Your task to perform on an android device: turn pop-ups on in chrome Image 0: 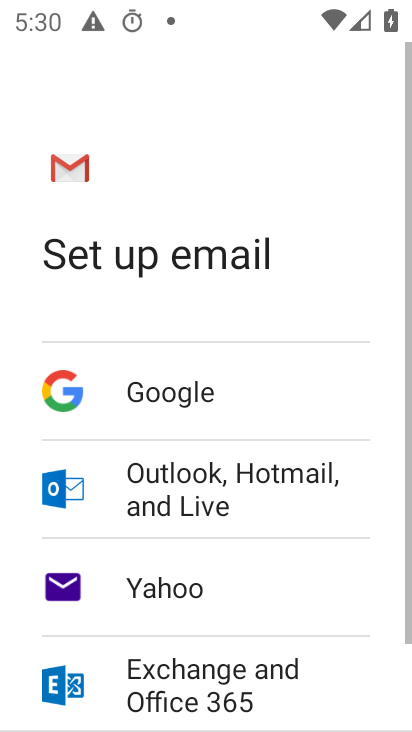
Step 0: press home button
Your task to perform on an android device: turn pop-ups on in chrome Image 1: 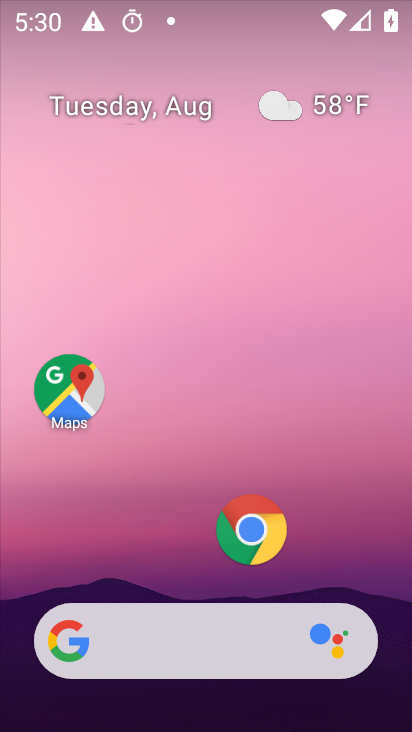
Step 1: click (257, 539)
Your task to perform on an android device: turn pop-ups on in chrome Image 2: 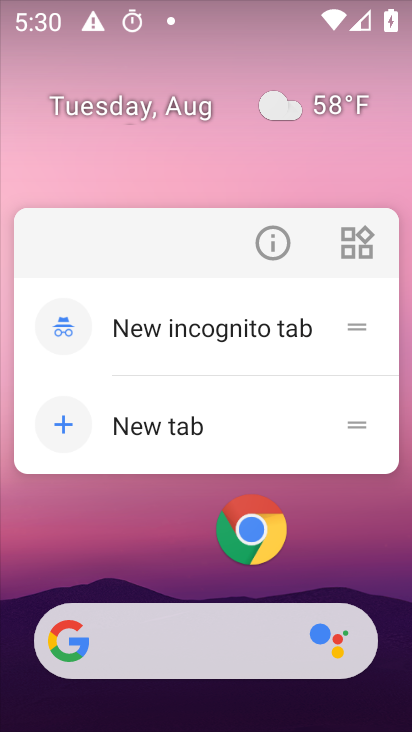
Step 2: click (251, 533)
Your task to perform on an android device: turn pop-ups on in chrome Image 3: 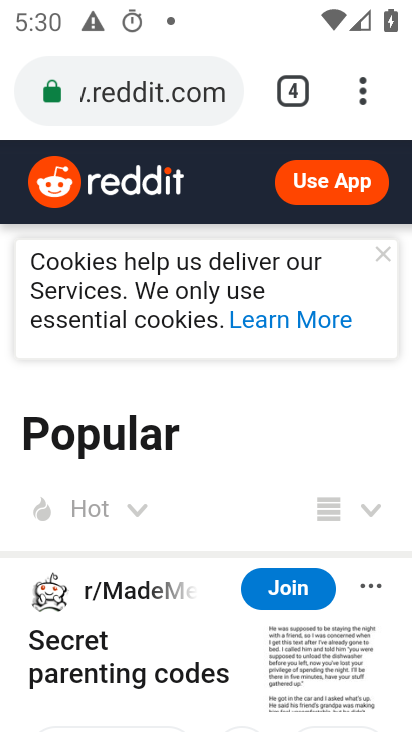
Step 3: click (350, 98)
Your task to perform on an android device: turn pop-ups on in chrome Image 4: 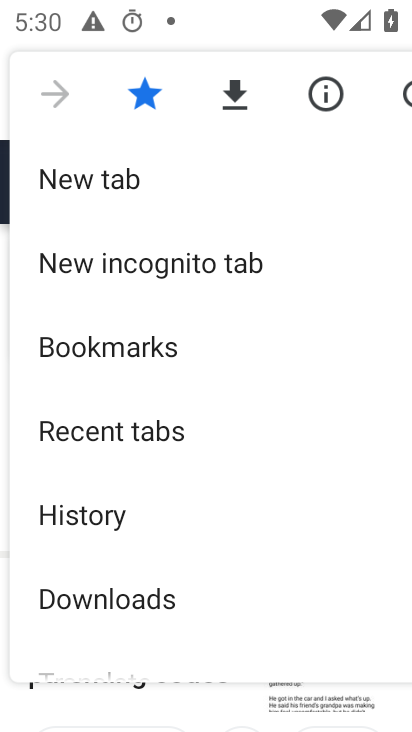
Step 4: drag from (187, 567) to (193, 257)
Your task to perform on an android device: turn pop-ups on in chrome Image 5: 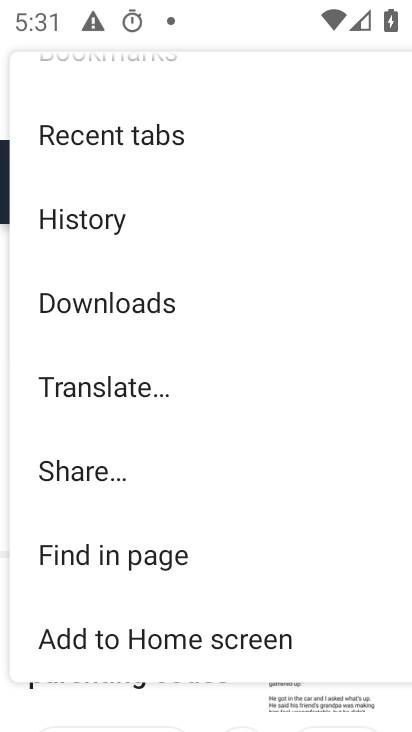
Step 5: drag from (196, 565) to (205, 279)
Your task to perform on an android device: turn pop-ups on in chrome Image 6: 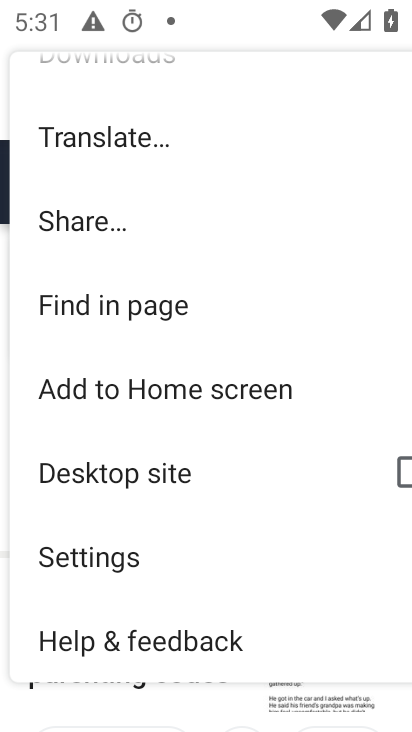
Step 6: click (134, 559)
Your task to perform on an android device: turn pop-ups on in chrome Image 7: 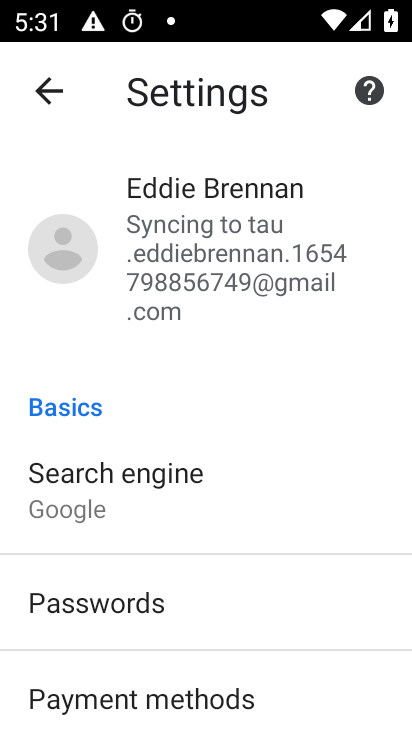
Step 7: drag from (138, 665) to (169, 297)
Your task to perform on an android device: turn pop-ups on in chrome Image 8: 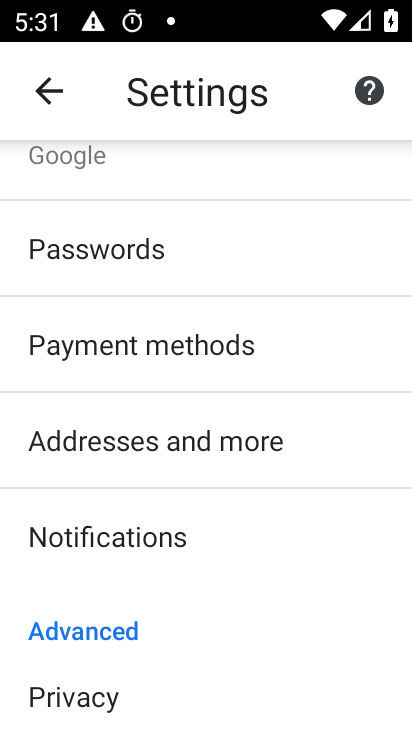
Step 8: drag from (195, 562) to (219, 287)
Your task to perform on an android device: turn pop-ups on in chrome Image 9: 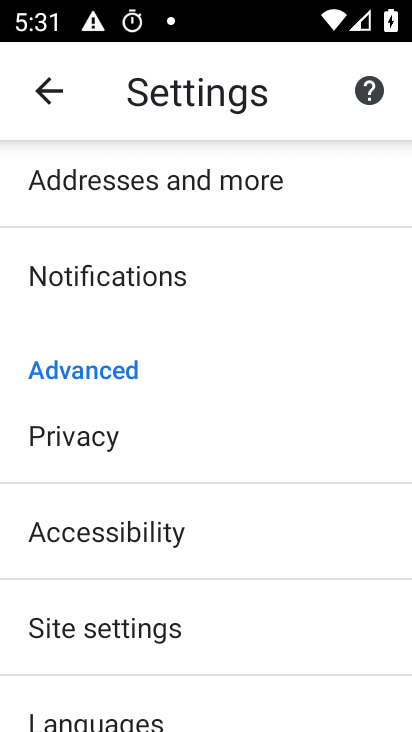
Step 9: click (204, 609)
Your task to perform on an android device: turn pop-ups on in chrome Image 10: 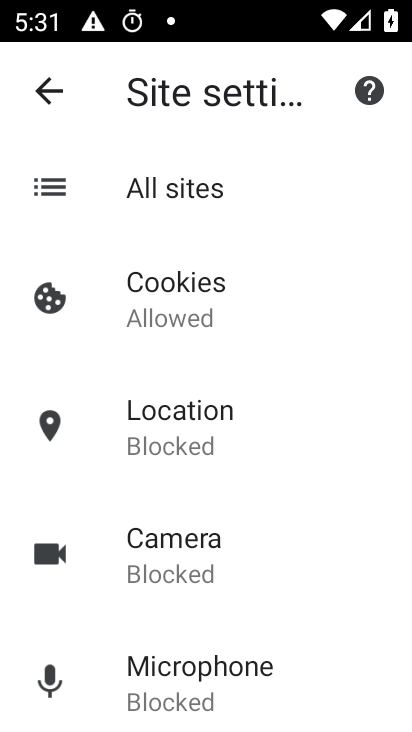
Step 10: drag from (230, 629) to (241, 300)
Your task to perform on an android device: turn pop-ups on in chrome Image 11: 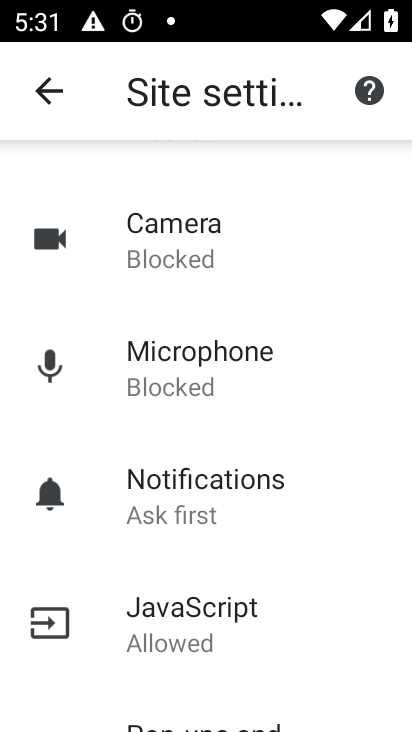
Step 11: drag from (239, 607) to (250, 310)
Your task to perform on an android device: turn pop-ups on in chrome Image 12: 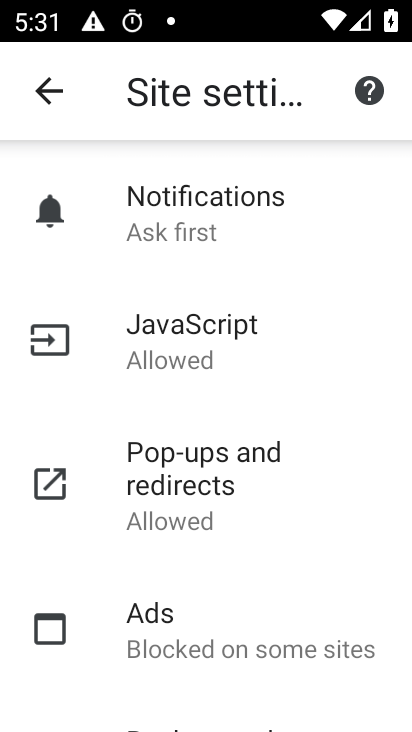
Step 12: click (236, 458)
Your task to perform on an android device: turn pop-ups on in chrome Image 13: 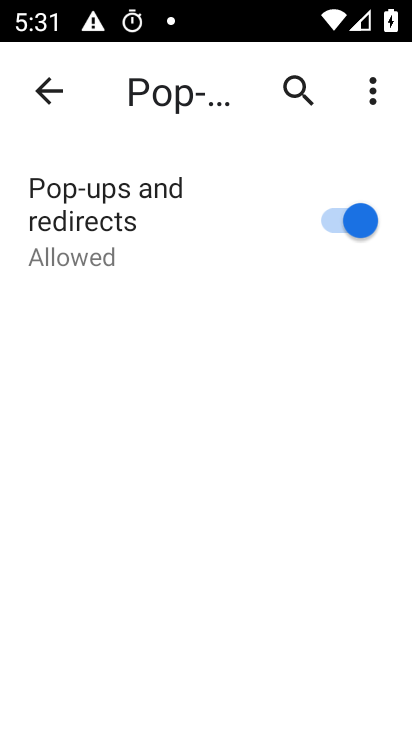
Step 13: task complete